Your task to perform on an android device: Go to location settings Image 0: 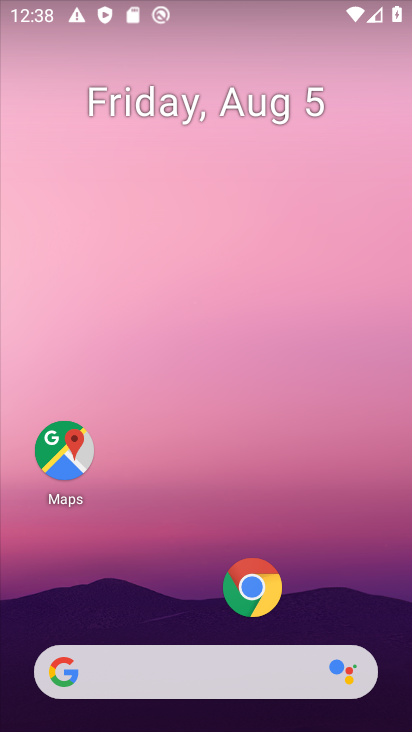
Step 0: drag from (140, 719) to (318, 19)
Your task to perform on an android device: Go to location settings Image 1: 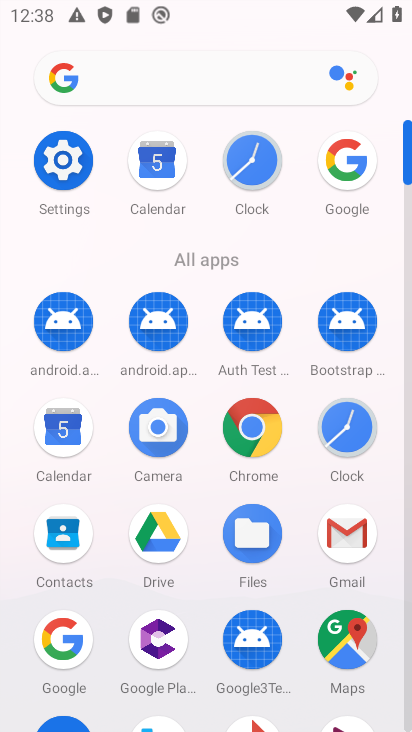
Step 1: click (52, 159)
Your task to perform on an android device: Go to location settings Image 2: 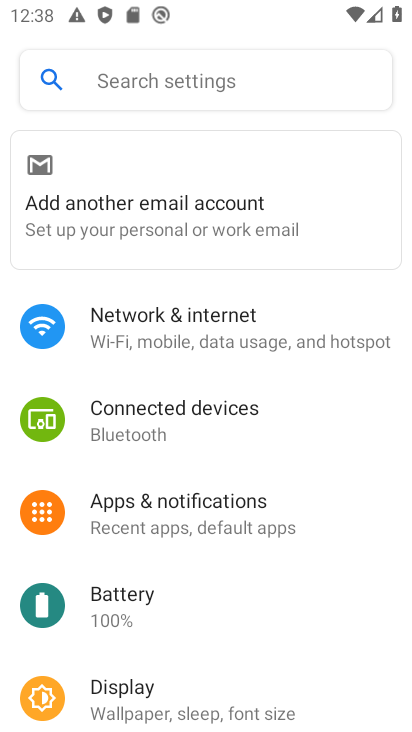
Step 2: drag from (221, 684) to (348, 23)
Your task to perform on an android device: Go to location settings Image 3: 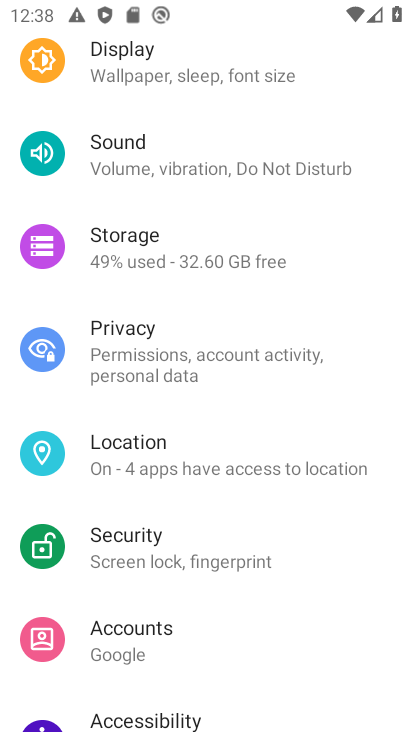
Step 3: click (318, 470)
Your task to perform on an android device: Go to location settings Image 4: 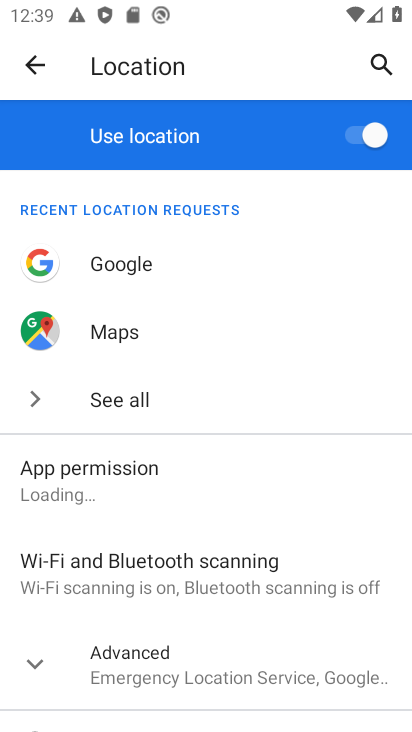
Step 4: task complete